Your task to perform on an android device: Search for Italian restaurants on Maps Image 0: 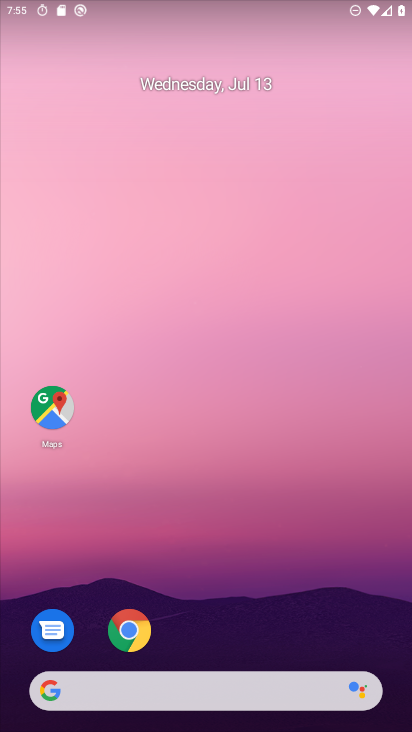
Step 0: drag from (385, 631) to (231, 33)
Your task to perform on an android device: Search for Italian restaurants on Maps Image 1: 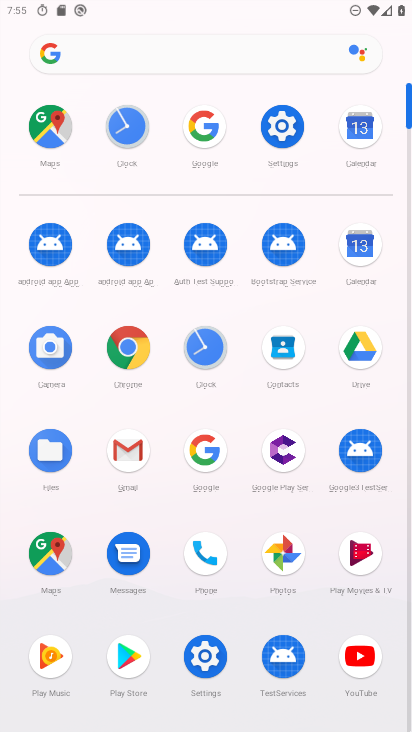
Step 1: click (51, 554)
Your task to perform on an android device: Search for Italian restaurants on Maps Image 2: 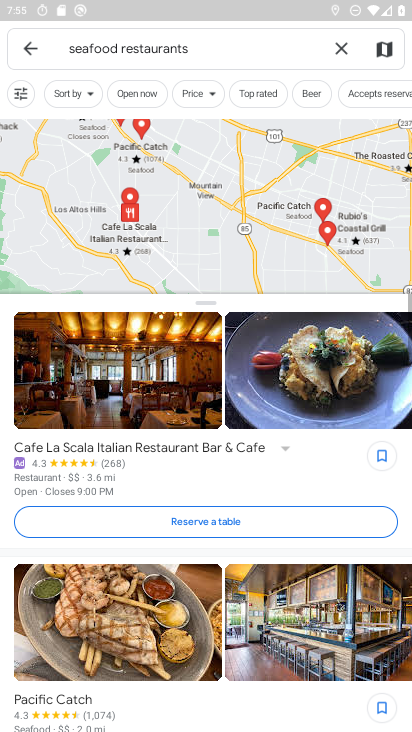
Step 2: click (342, 44)
Your task to perform on an android device: Search for Italian restaurants on Maps Image 3: 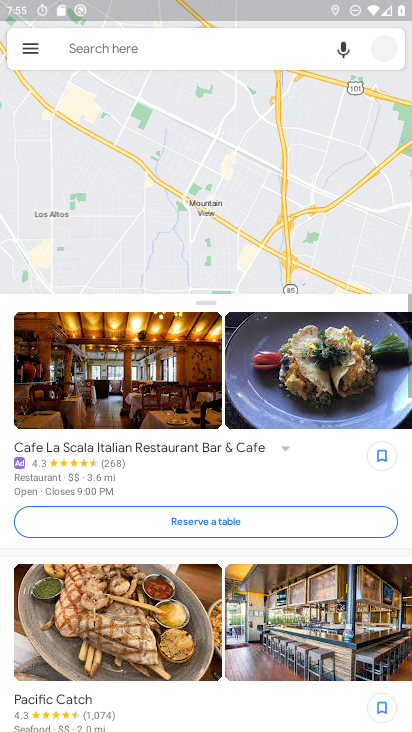
Step 3: click (168, 44)
Your task to perform on an android device: Search for Italian restaurants on Maps Image 4: 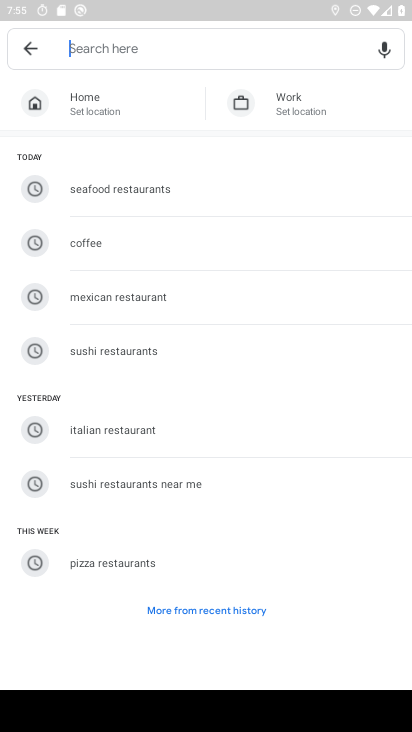
Step 4: type "Italian restaurants"
Your task to perform on an android device: Search for Italian restaurants on Maps Image 5: 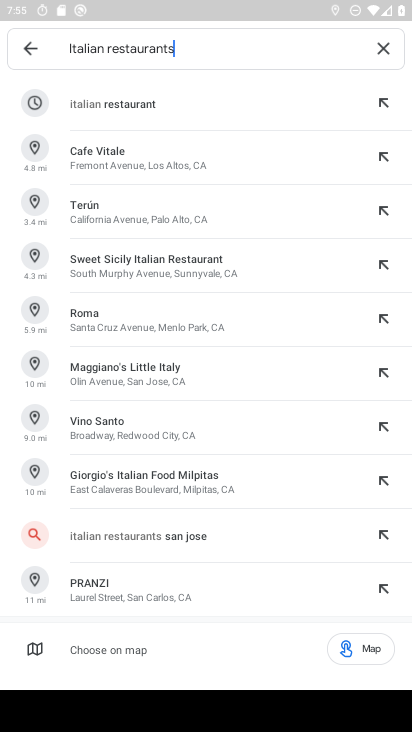
Step 5: click (134, 104)
Your task to perform on an android device: Search for Italian restaurants on Maps Image 6: 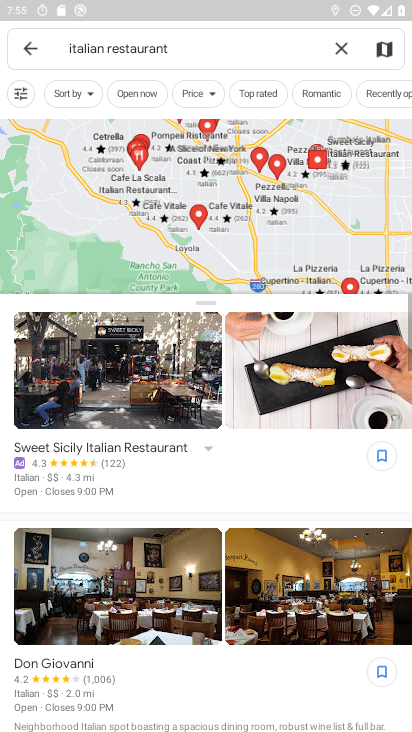
Step 6: task complete